Your task to perform on an android device: What's on my calendar tomorrow? Image 0: 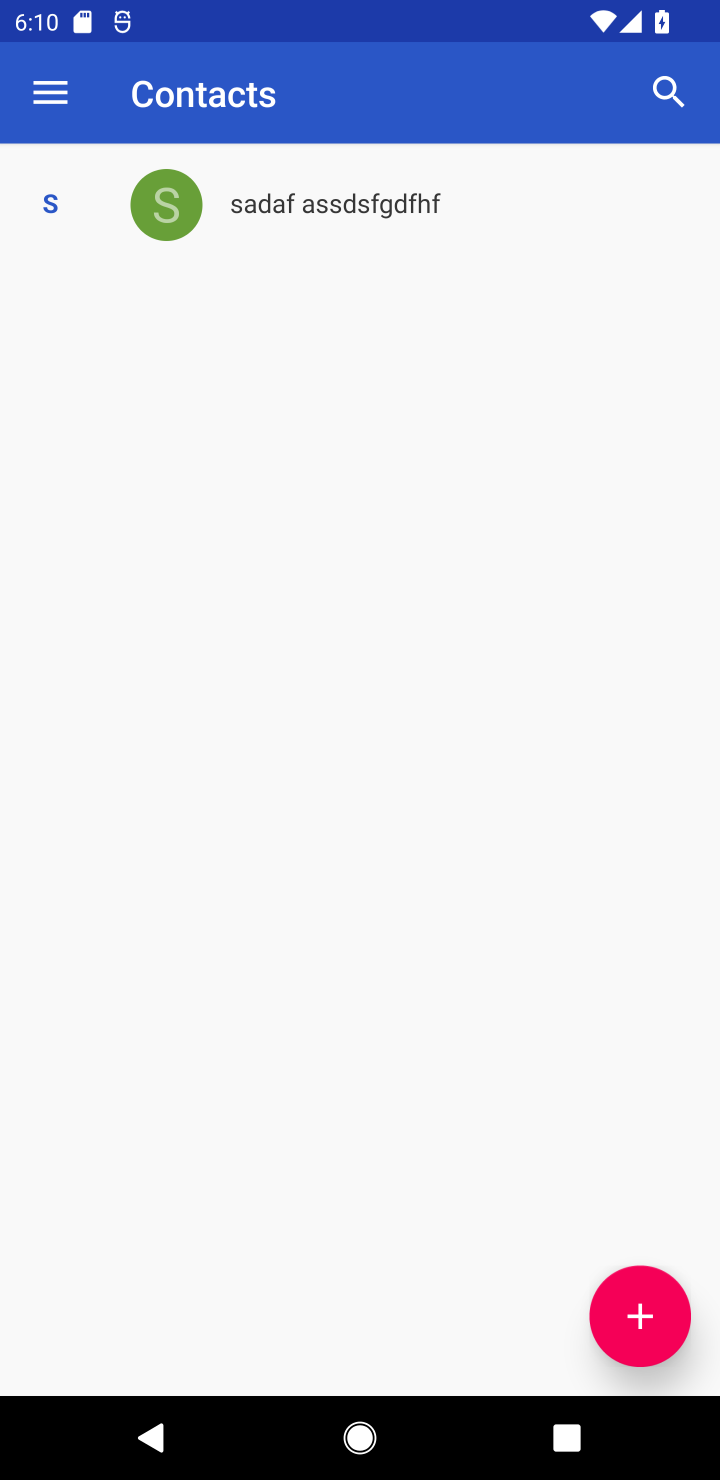
Step 0: task complete